Your task to perform on an android device: Open Reddit.com Image 0: 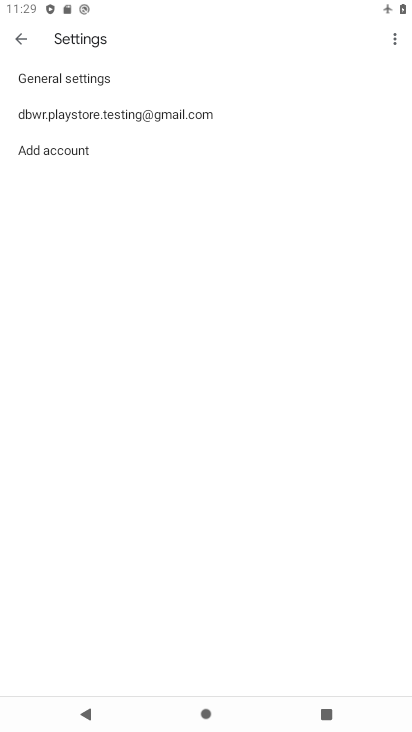
Step 0: press home button
Your task to perform on an android device: Open Reddit.com Image 1: 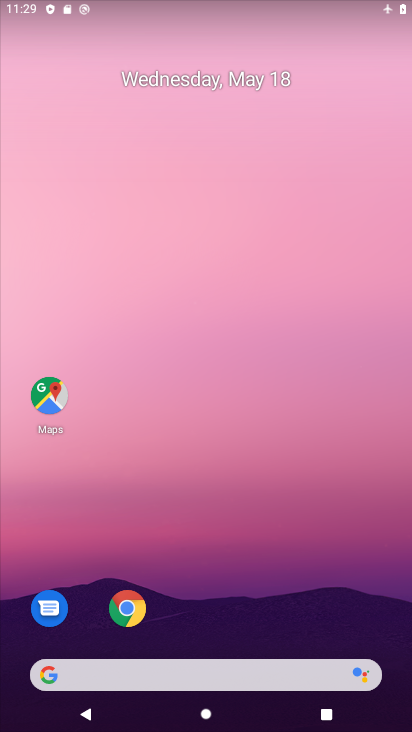
Step 1: click (116, 618)
Your task to perform on an android device: Open Reddit.com Image 2: 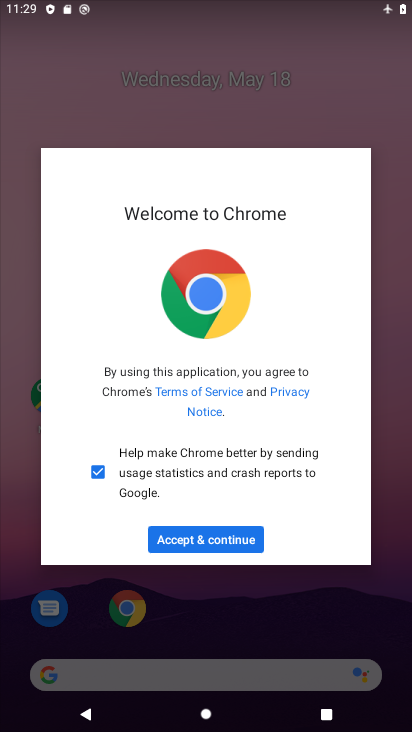
Step 2: click (213, 545)
Your task to perform on an android device: Open Reddit.com Image 3: 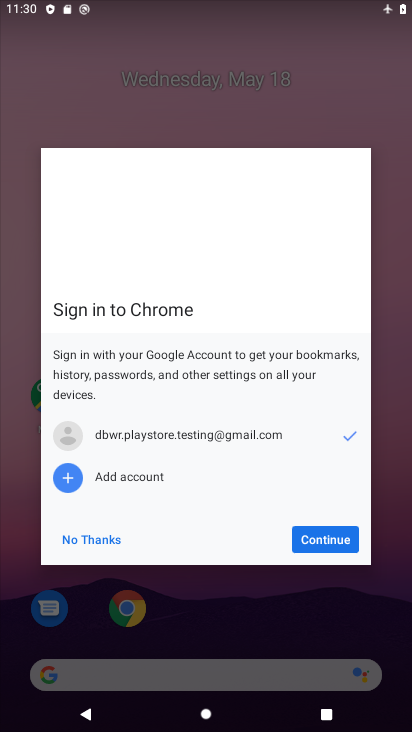
Step 3: click (334, 533)
Your task to perform on an android device: Open Reddit.com Image 4: 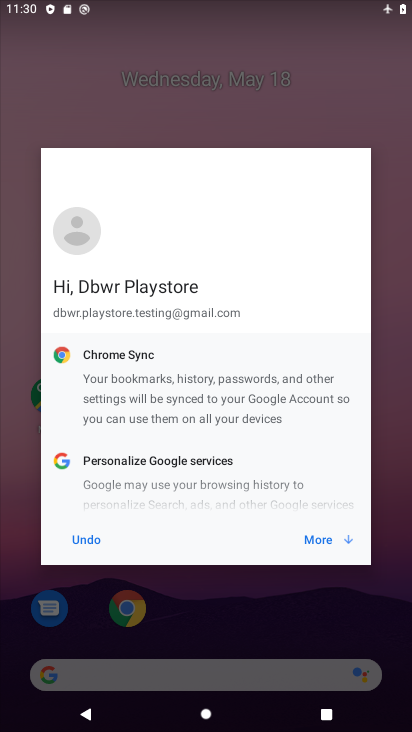
Step 4: click (334, 540)
Your task to perform on an android device: Open Reddit.com Image 5: 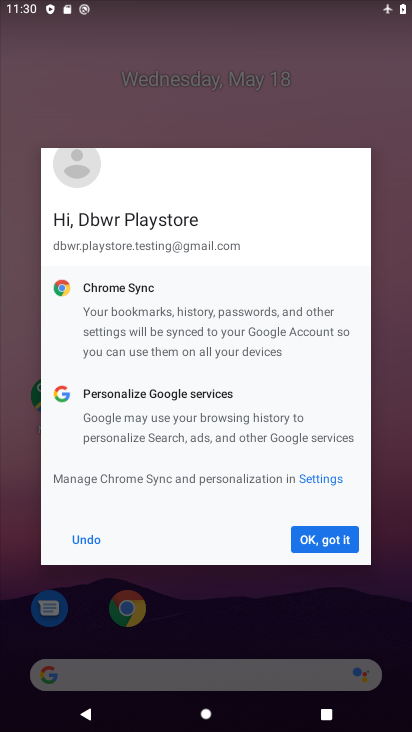
Step 5: click (334, 540)
Your task to perform on an android device: Open Reddit.com Image 6: 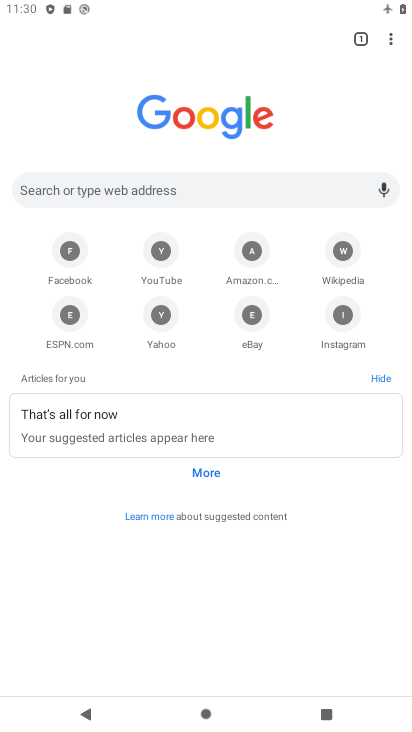
Step 6: click (180, 188)
Your task to perform on an android device: Open Reddit.com Image 7: 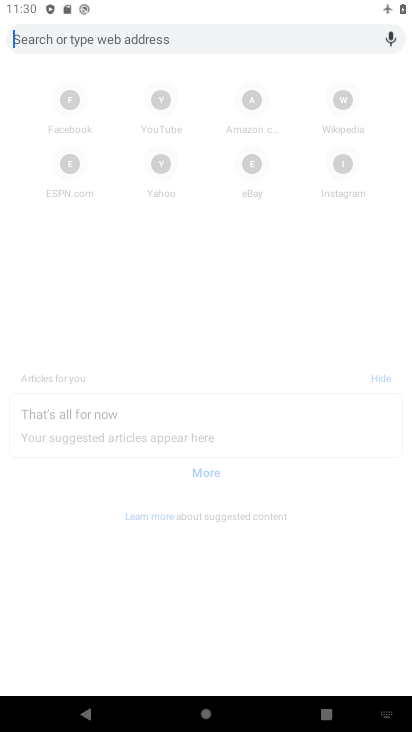
Step 7: type "reddit .com"
Your task to perform on an android device: Open Reddit.com Image 8: 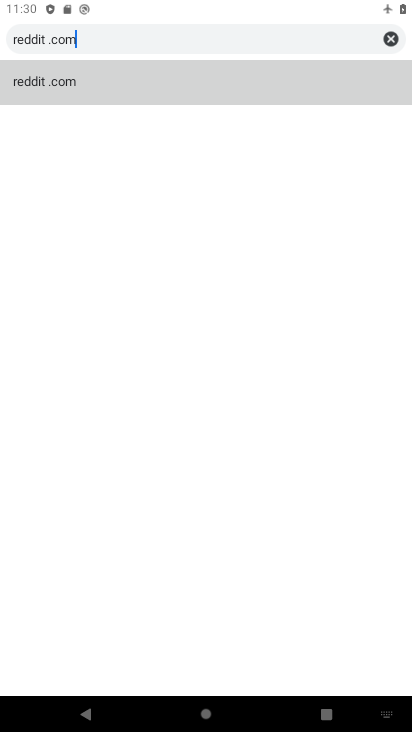
Step 8: click (112, 77)
Your task to perform on an android device: Open Reddit.com Image 9: 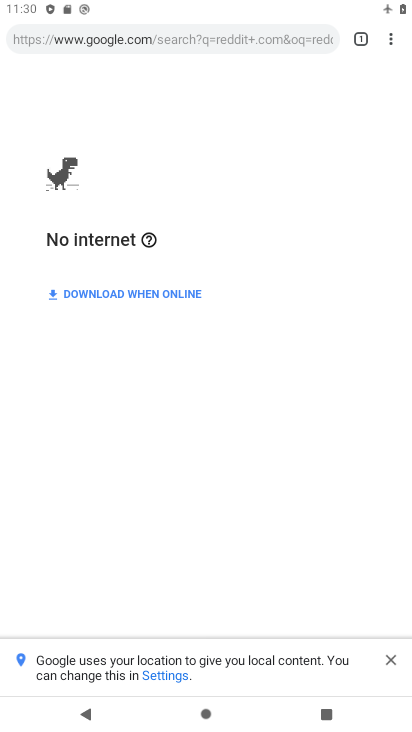
Step 9: task complete